Your task to perform on an android device: Open internet settings Image 0: 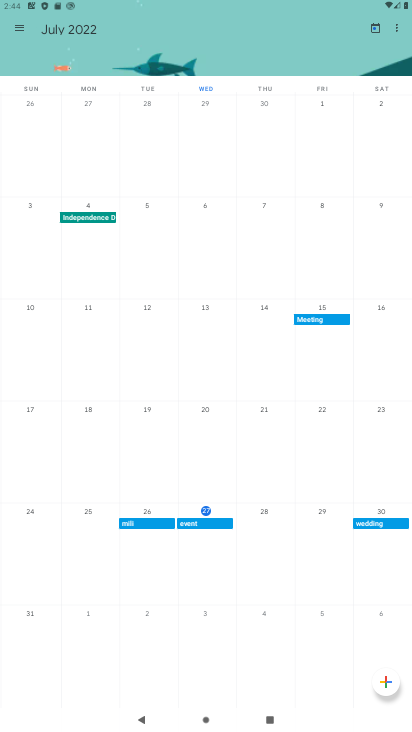
Step 0: press home button
Your task to perform on an android device: Open internet settings Image 1: 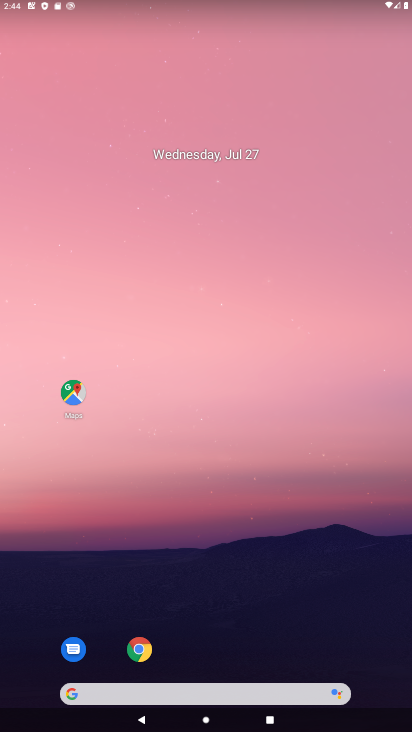
Step 1: drag from (337, 665) to (137, 10)
Your task to perform on an android device: Open internet settings Image 2: 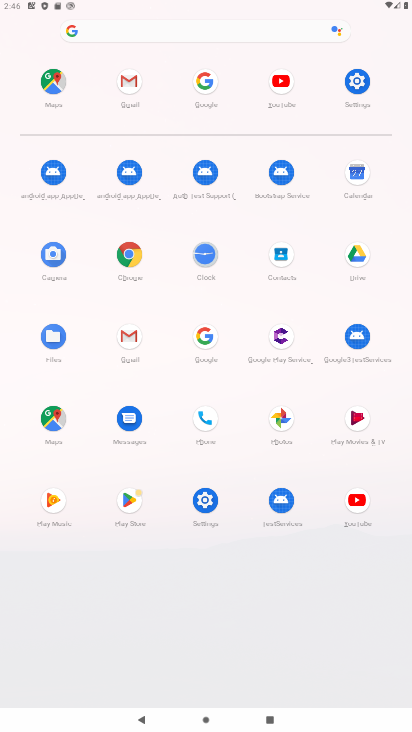
Step 2: click (205, 507)
Your task to perform on an android device: Open internet settings Image 3: 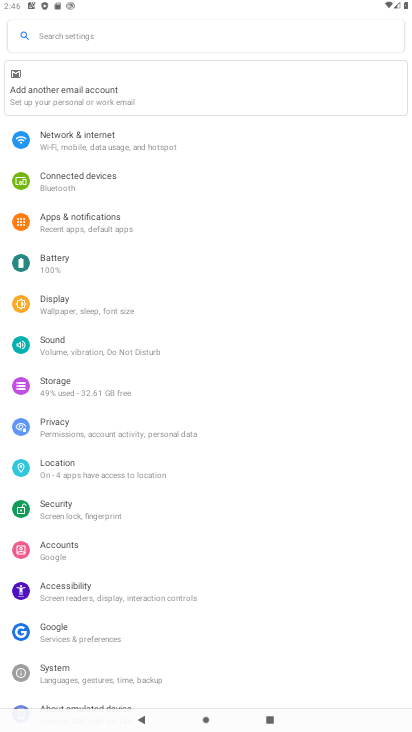
Step 3: click (64, 152)
Your task to perform on an android device: Open internet settings Image 4: 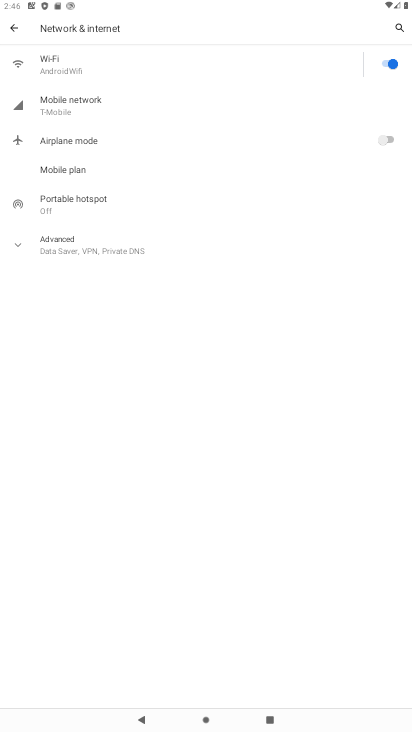
Step 4: task complete